Your task to perform on an android device: Search for Mexican restaurants on Maps Image 0: 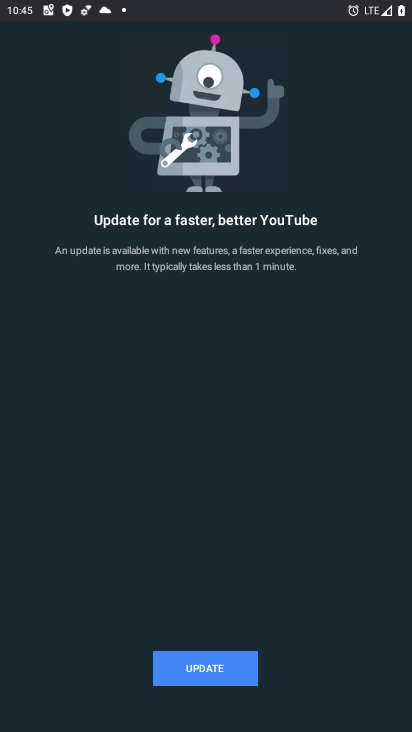
Step 0: press back button
Your task to perform on an android device: Search for Mexican restaurants on Maps Image 1: 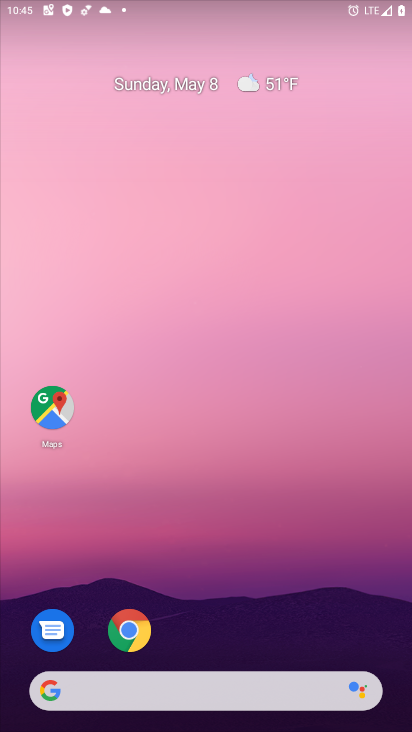
Step 1: drag from (344, 623) to (298, 72)
Your task to perform on an android device: Search for Mexican restaurants on Maps Image 2: 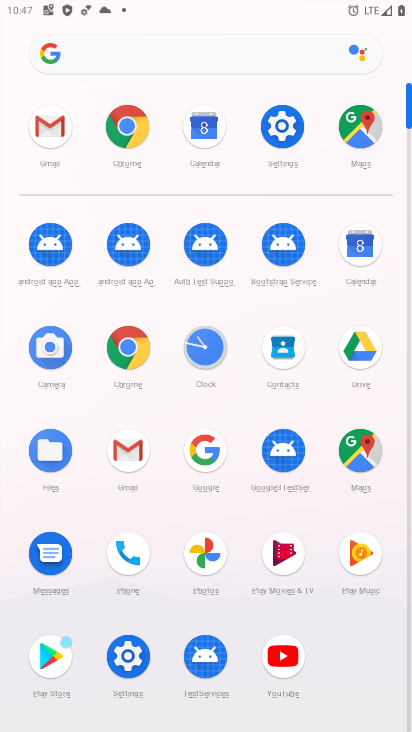
Step 2: click (345, 459)
Your task to perform on an android device: Search for Mexican restaurants on Maps Image 3: 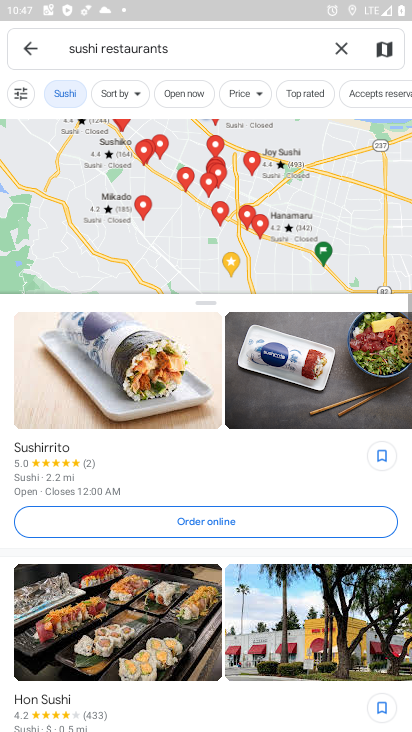
Step 3: click (342, 47)
Your task to perform on an android device: Search for Mexican restaurants on Maps Image 4: 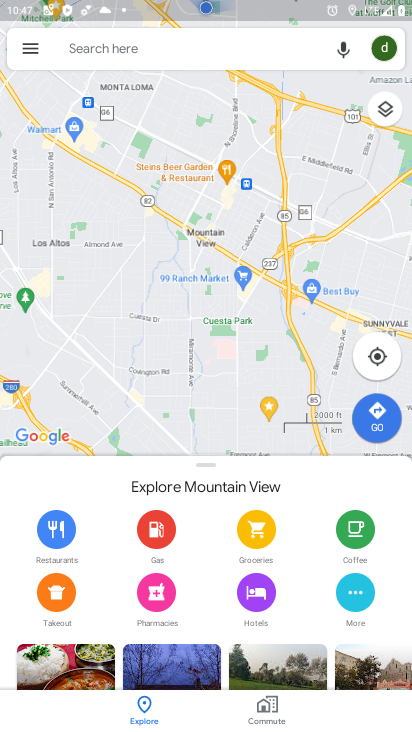
Step 4: click (253, 47)
Your task to perform on an android device: Search for Mexican restaurants on Maps Image 5: 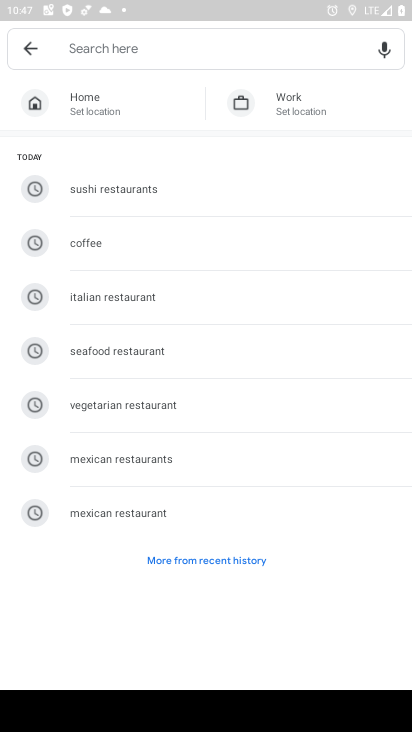
Step 5: click (160, 453)
Your task to perform on an android device: Search for Mexican restaurants on Maps Image 6: 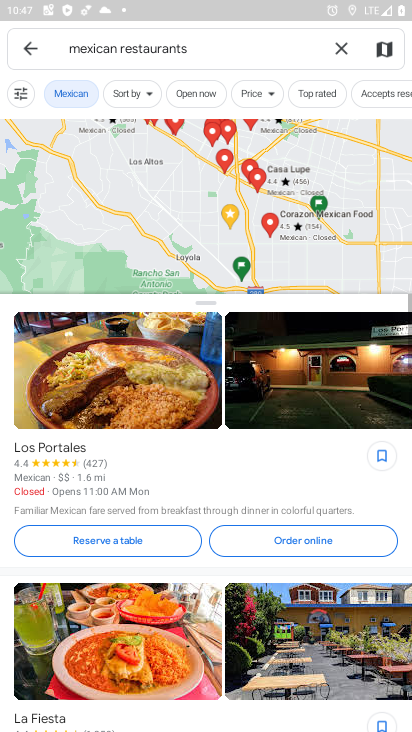
Step 6: task complete